Your task to perform on an android device: Open calendar and show me the fourth week of next month Image 0: 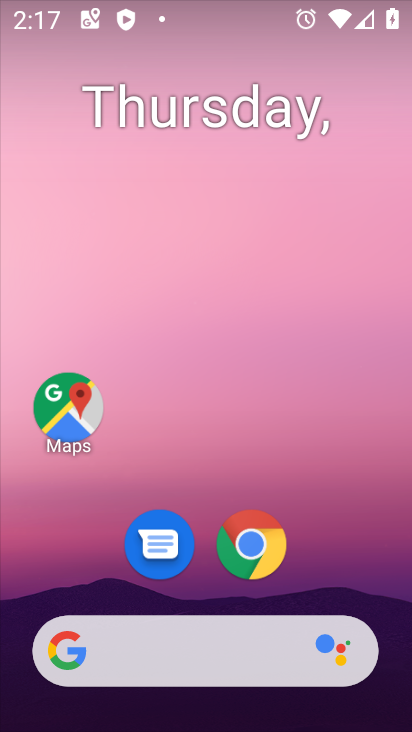
Step 0: drag from (345, 579) to (322, 214)
Your task to perform on an android device: Open calendar and show me the fourth week of next month Image 1: 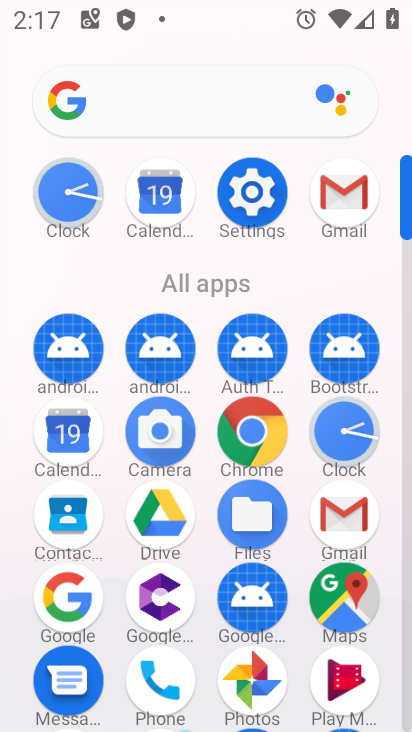
Step 1: click (171, 198)
Your task to perform on an android device: Open calendar and show me the fourth week of next month Image 2: 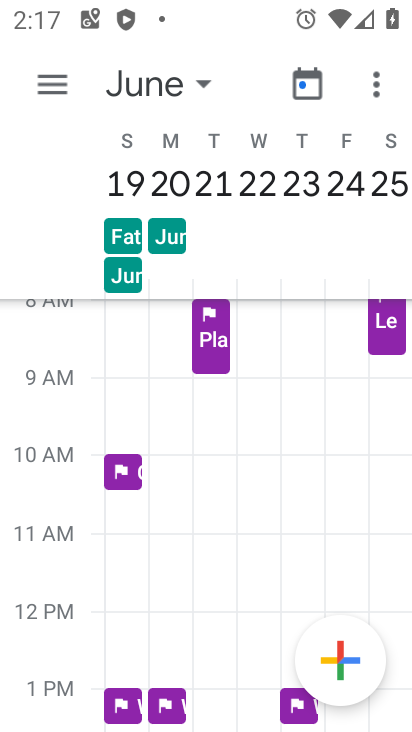
Step 2: task complete